Your task to perform on an android device: turn off notifications settings in the gmail app Image 0: 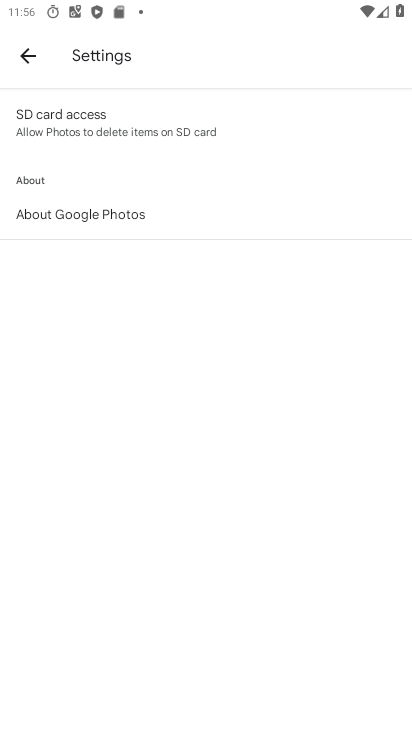
Step 0: press home button
Your task to perform on an android device: turn off notifications settings in the gmail app Image 1: 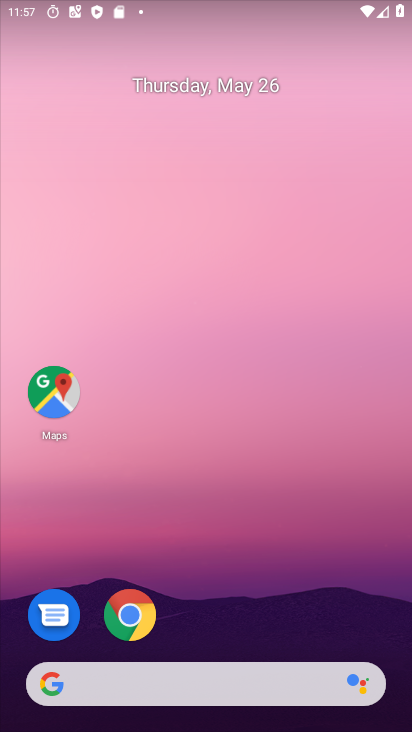
Step 1: drag from (267, 600) to (195, 208)
Your task to perform on an android device: turn off notifications settings in the gmail app Image 2: 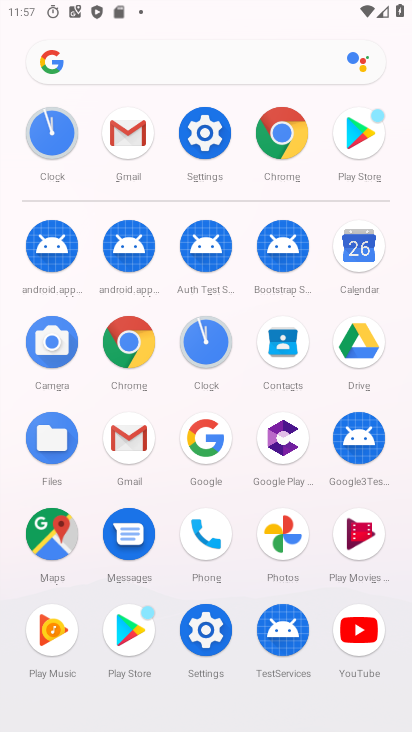
Step 2: click (134, 139)
Your task to perform on an android device: turn off notifications settings in the gmail app Image 3: 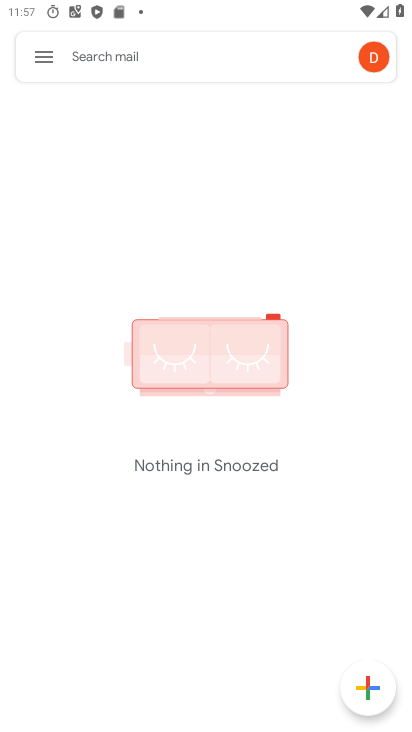
Step 3: click (48, 64)
Your task to perform on an android device: turn off notifications settings in the gmail app Image 4: 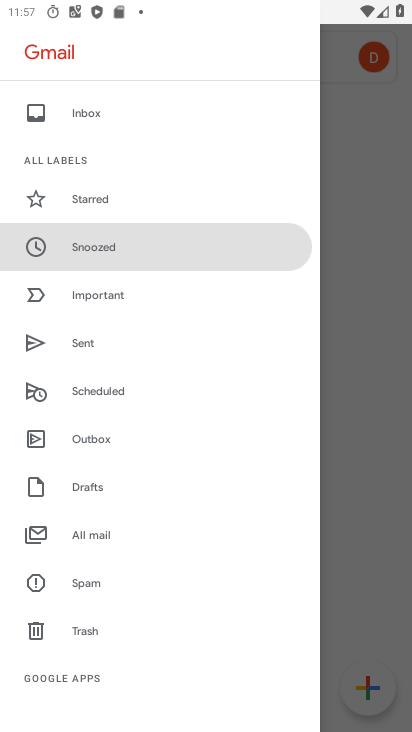
Step 4: drag from (152, 657) to (120, 192)
Your task to perform on an android device: turn off notifications settings in the gmail app Image 5: 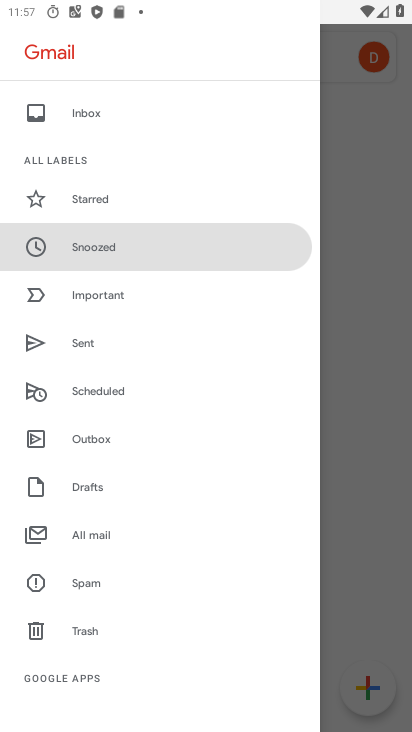
Step 5: drag from (88, 648) to (94, 97)
Your task to perform on an android device: turn off notifications settings in the gmail app Image 6: 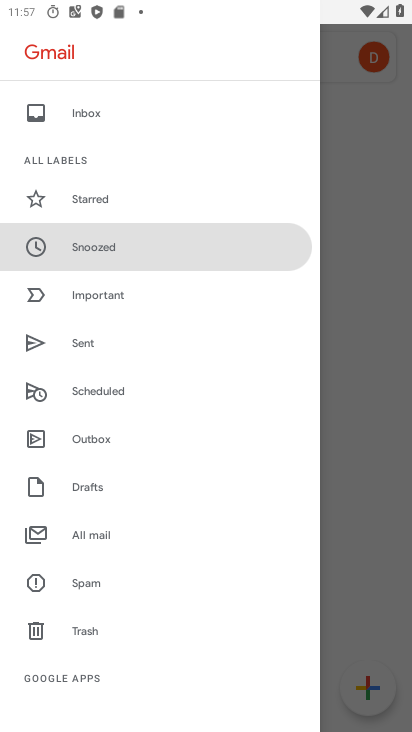
Step 6: drag from (126, 664) to (100, 296)
Your task to perform on an android device: turn off notifications settings in the gmail app Image 7: 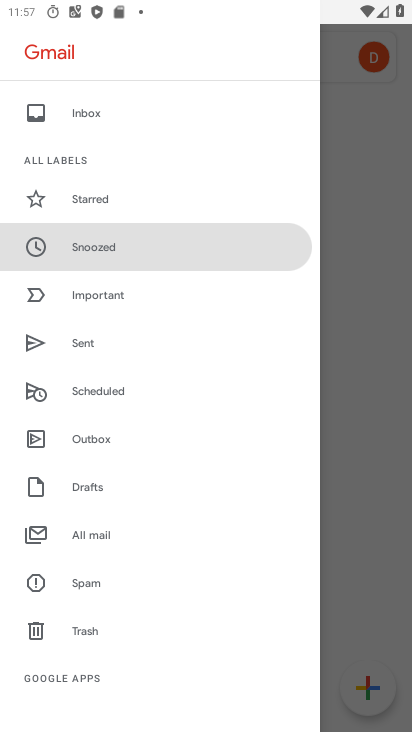
Step 7: drag from (85, 604) to (65, 178)
Your task to perform on an android device: turn off notifications settings in the gmail app Image 8: 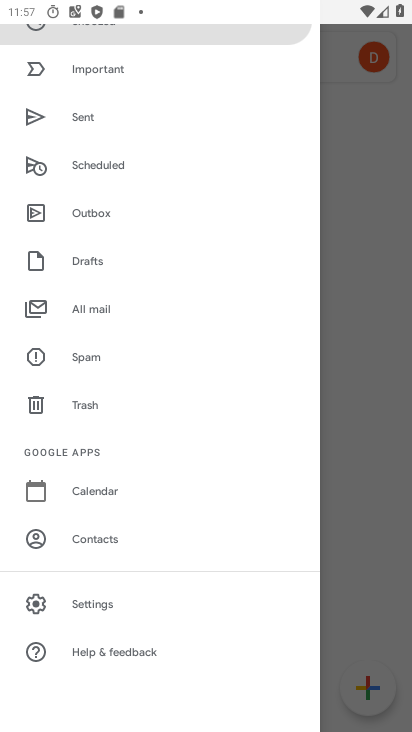
Step 8: click (102, 601)
Your task to perform on an android device: turn off notifications settings in the gmail app Image 9: 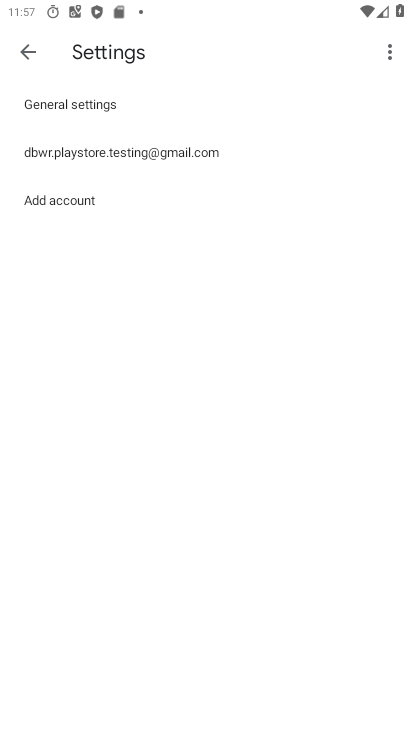
Step 9: click (233, 165)
Your task to perform on an android device: turn off notifications settings in the gmail app Image 10: 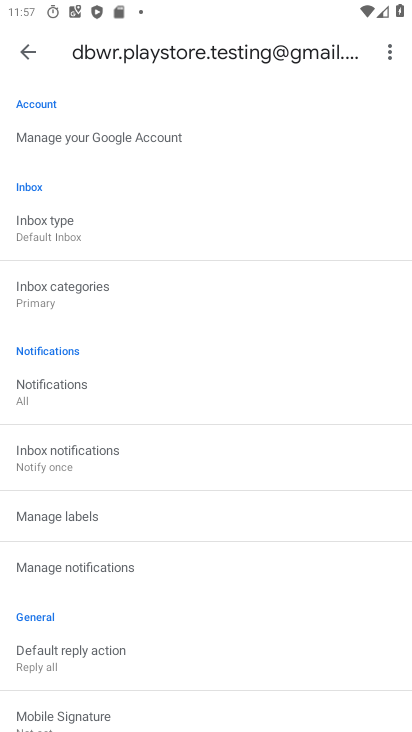
Step 10: click (140, 570)
Your task to perform on an android device: turn off notifications settings in the gmail app Image 11: 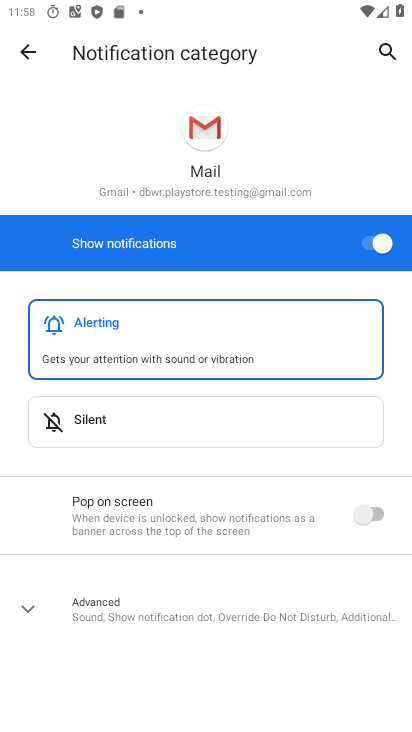
Step 11: task complete